Your task to perform on an android device: Open wifi settings Image 0: 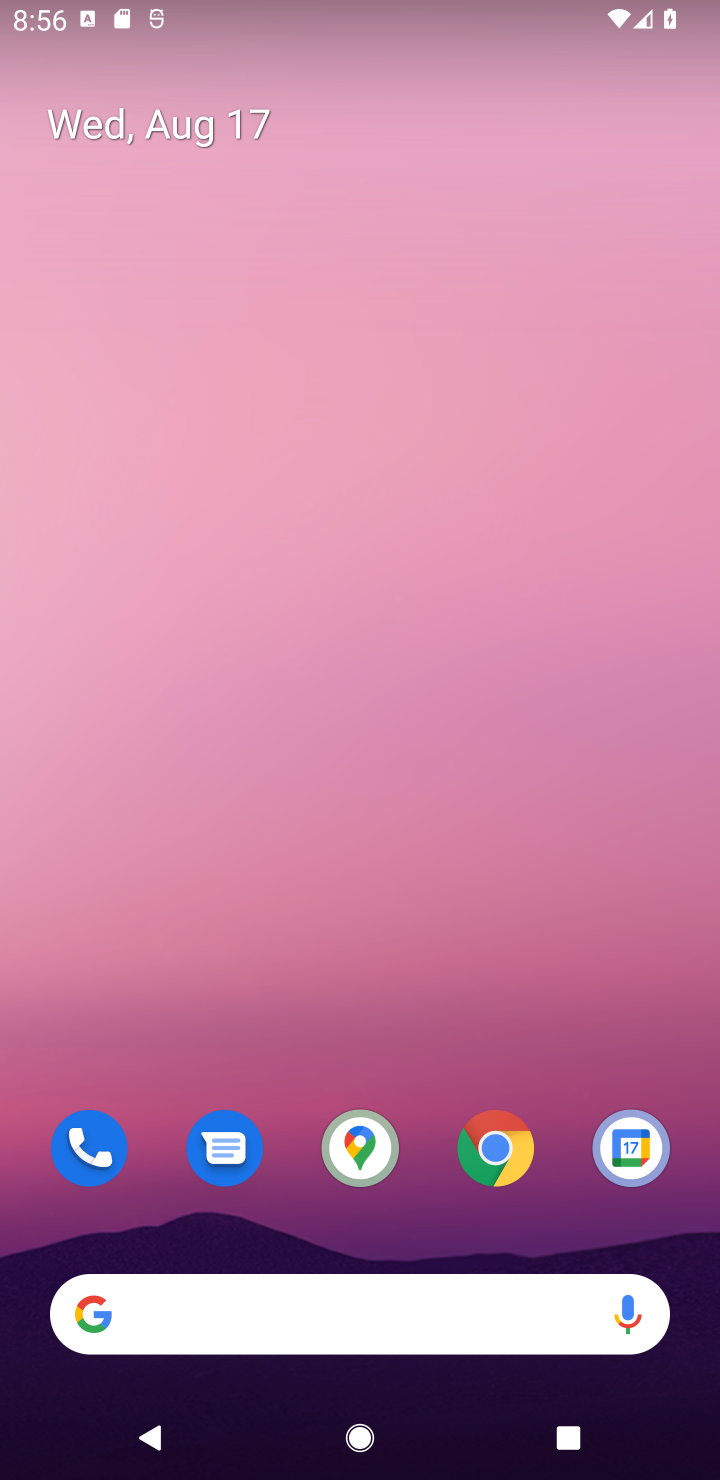
Step 0: drag from (571, 1188) to (510, 385)
Your task to perform on an android device: Open wifi settings Image 1: 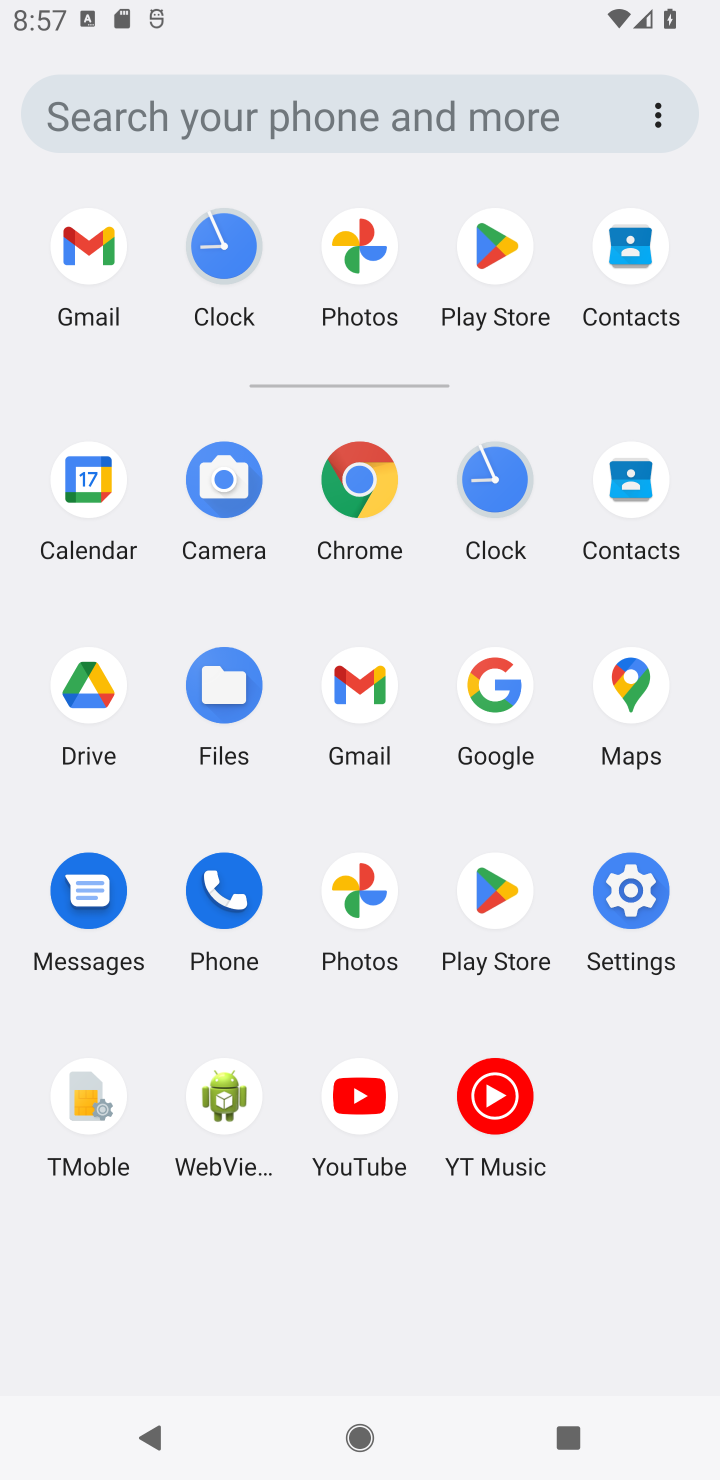
Step 1: click (632, 896)
Your task to perform on an android device: Open wifi settings Image 2: 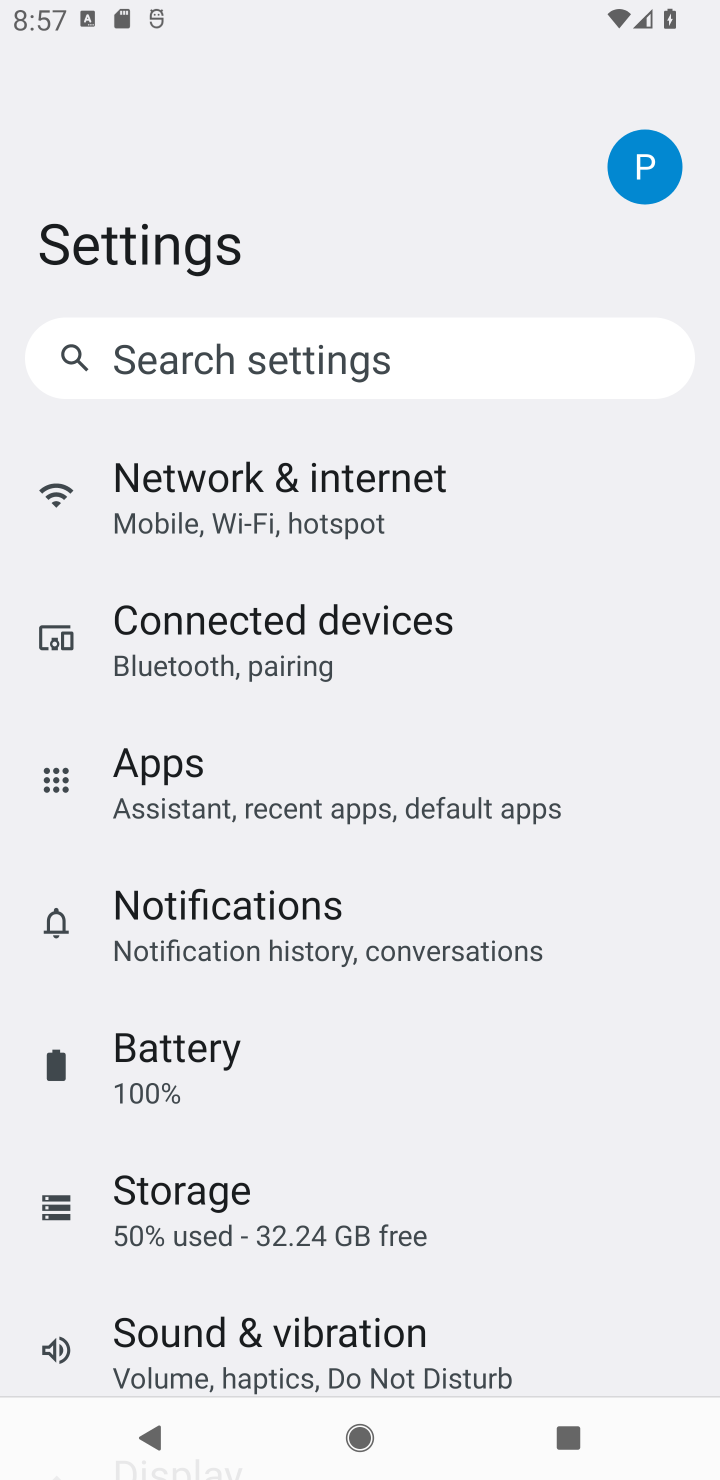
Step 2: click (192, 470)
Your task to perform on an android device: Open wifi settings Image 3: 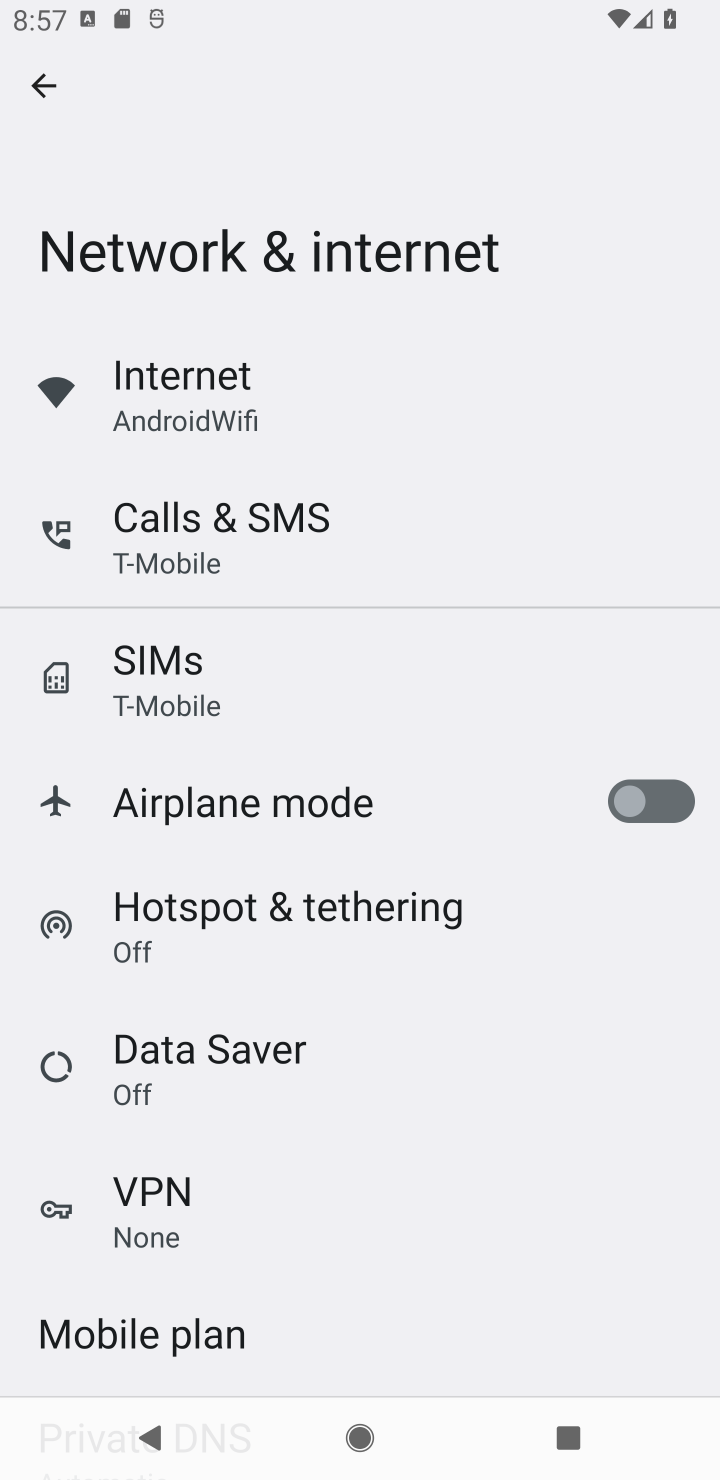
Step 3: click (140, 382)
Your task to perform on an android device: Open wifi settings Image 4: 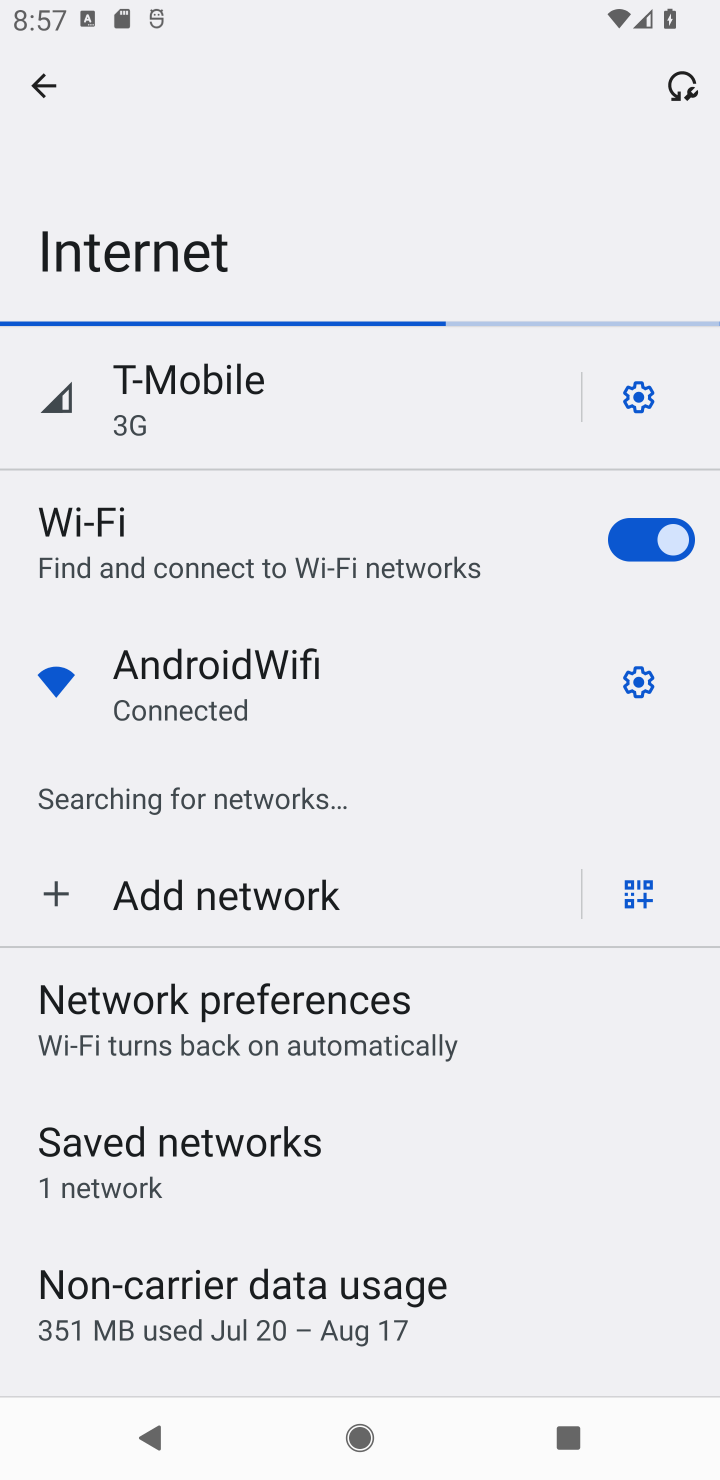
Step 4: click (639, 679)
Your task to perform on an android device: Open wifi settings Image 5: 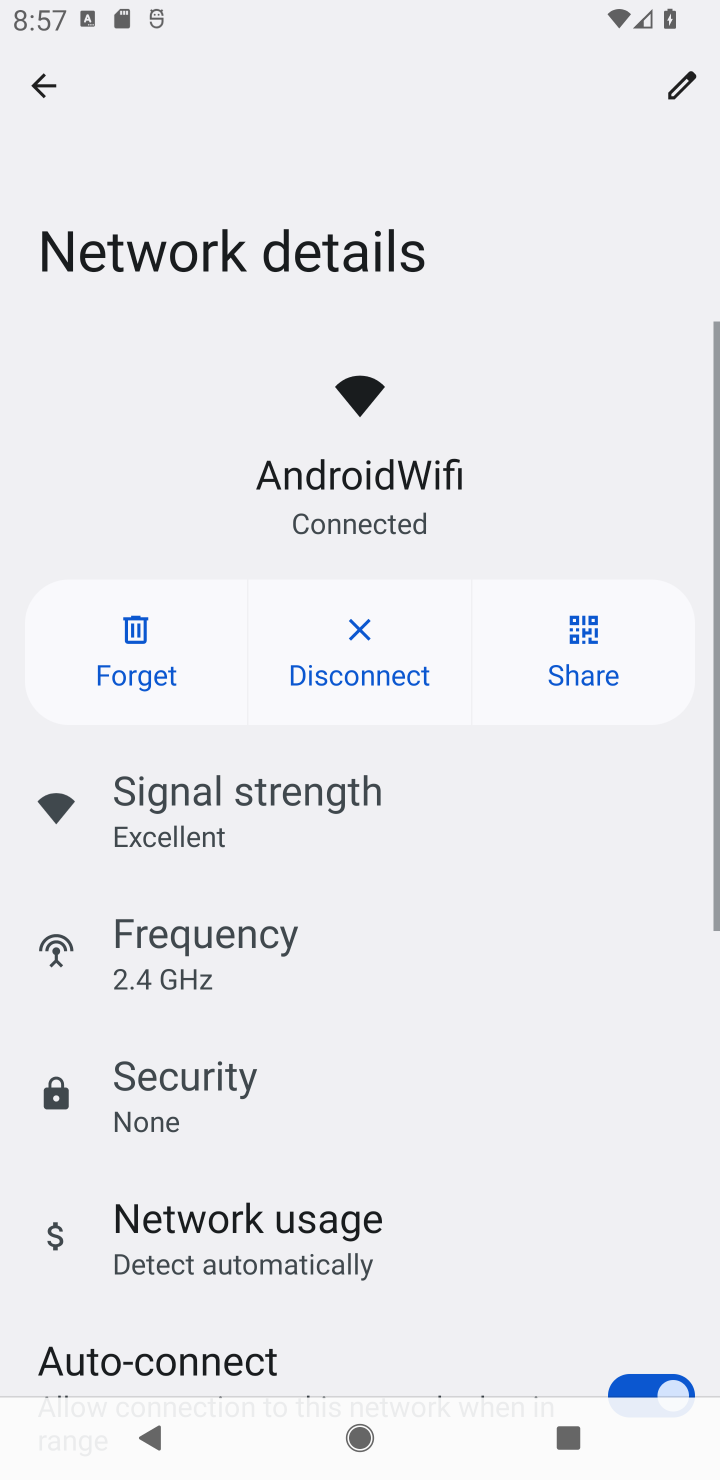
Step 5: task complete